Your task to perform on an android device: Go to Amazon Image 0: 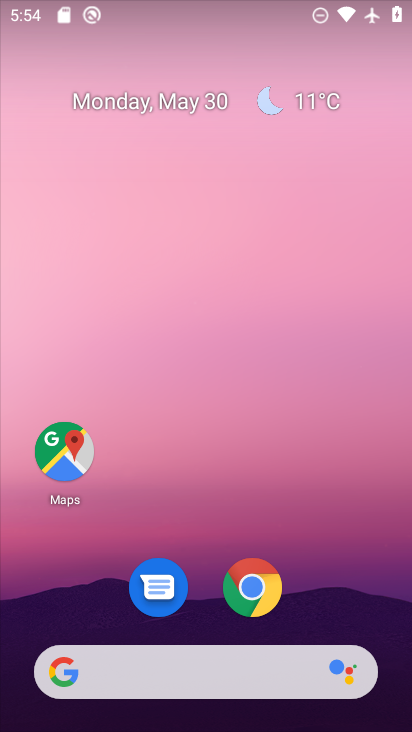
Step 0: drag from (343, 572) to (236, 49)
Your task to perform on an android device: Go to Amazon Image 1: 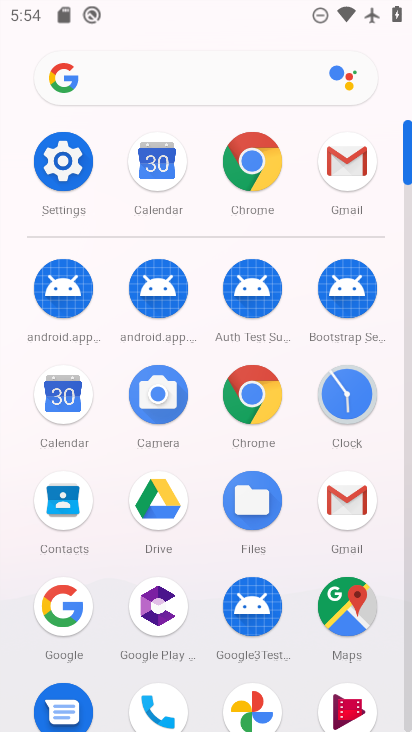
Step 1: drag from (12, 583) to (22, 255)
Your task to perform on an android device: Go to Amazon Image 2: 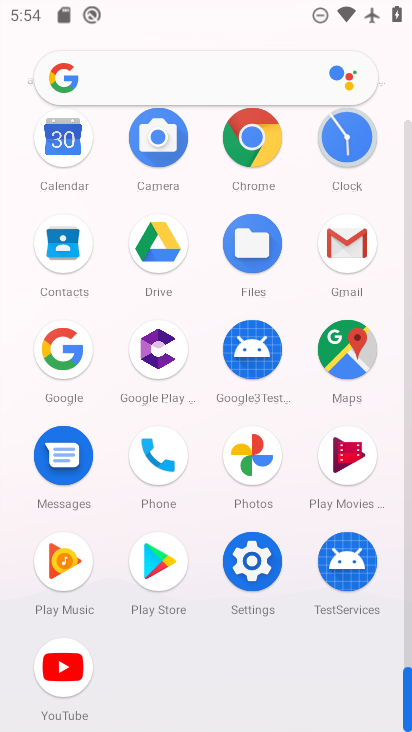
Step 2: click (249, 129)
Your task to perform on an android device: Go to Amazon Image 3: 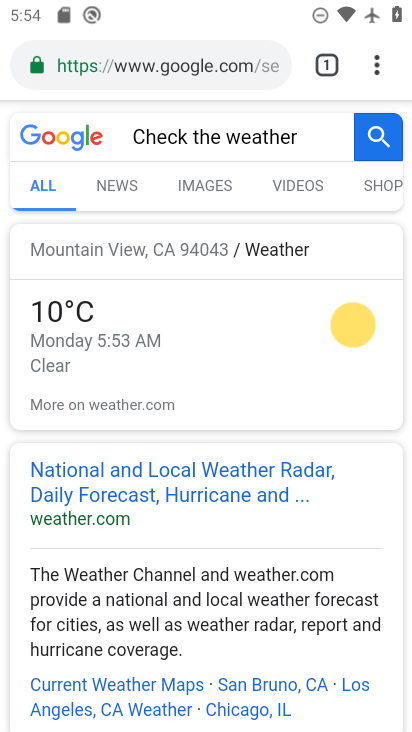
Step 3: click (167, 66)
Your task to perform on an android device: Go to Amazon Image 4: 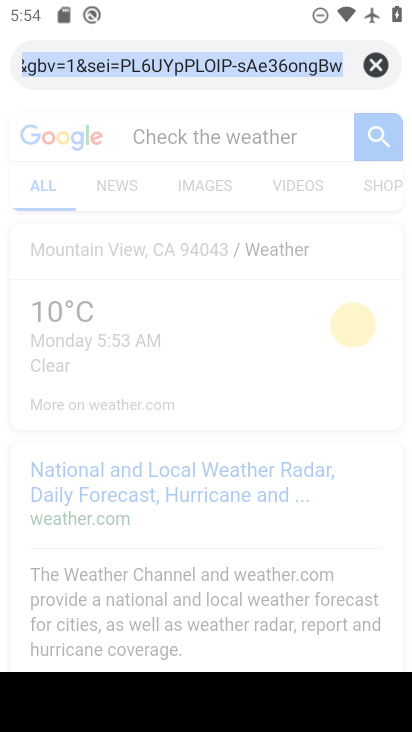
Step 4: click (371, 60)
Your task to perform on an android device: Go to Amazon Image 5: 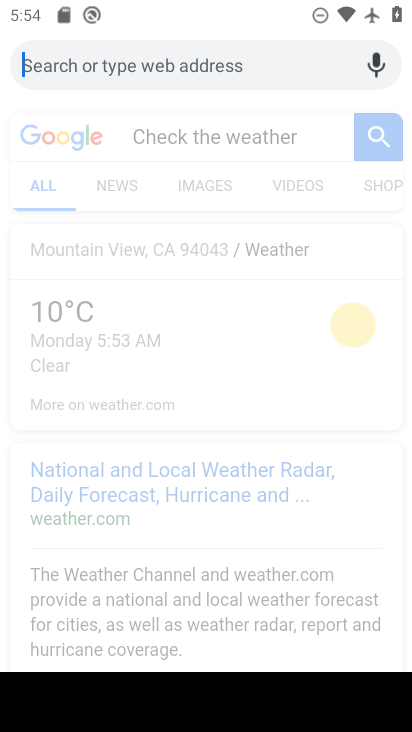
Step 5: type "Amazon"
Your task to perform on an android device: Go to Amazon Image 6: 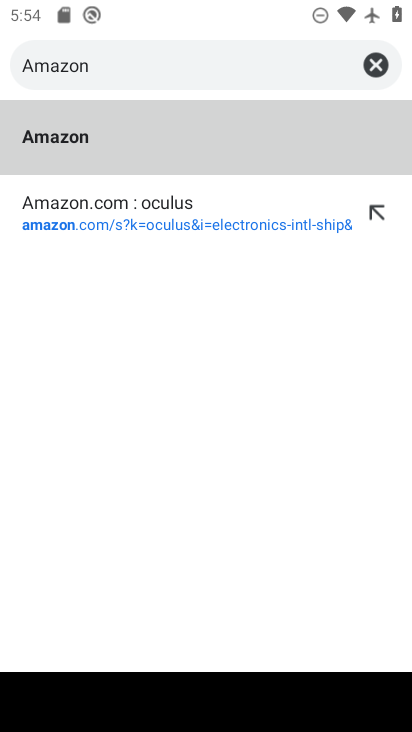
Step 6: click (146, 218)
Your task to perform on an android device: Go to Amazon Image 7: 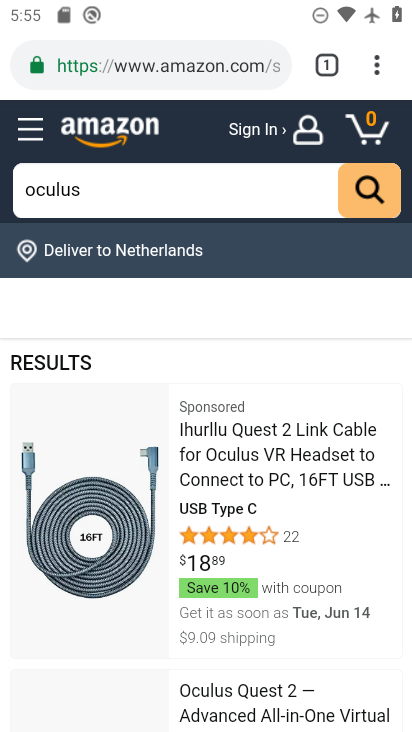
Step 7: task complete